Your task to perform on an android device: Go to Google maps Image 0: 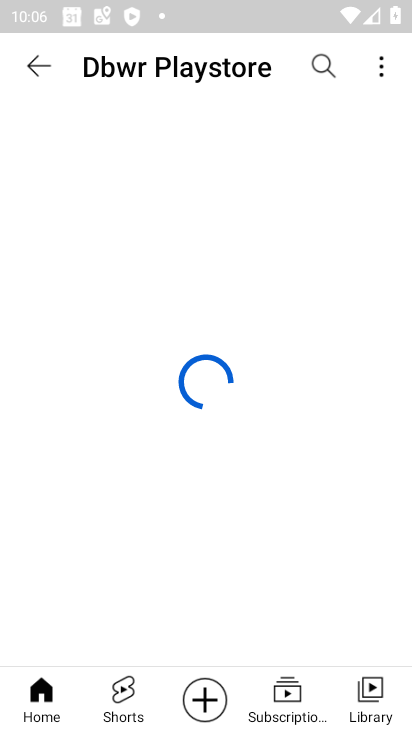
Step 0: drag from (339, 550) to (150, 79)
Your task to perform on an android device: Go to Google maps Image 1: 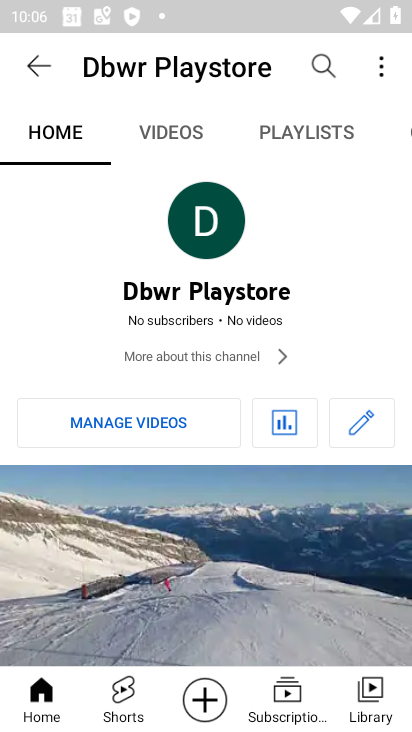
Step 1: press home button
Your task to perform on an android device: Go to Google maps Image 2: 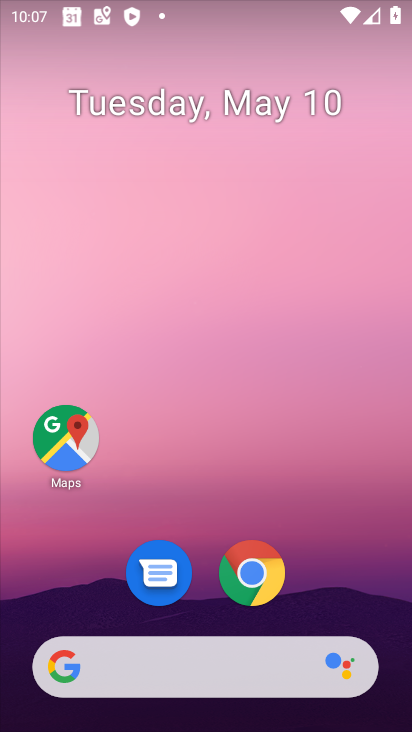
Step 2: click (54, 453)
Your task to perform on an android device: Go to Google maps Image 3: 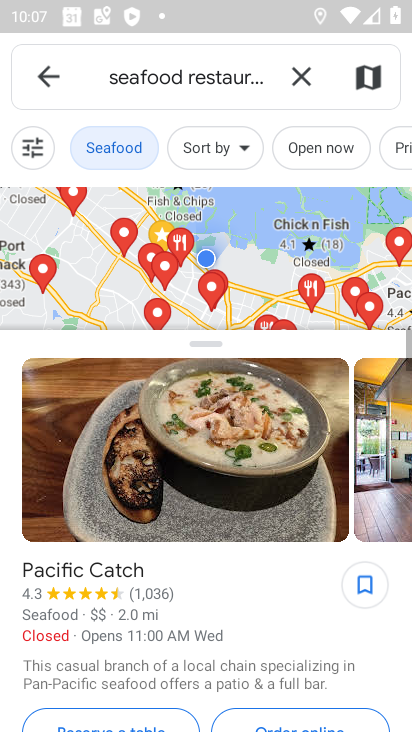
Step 3: task complete